Your task to perform on an android device: clear history in the chrome app Image 0: 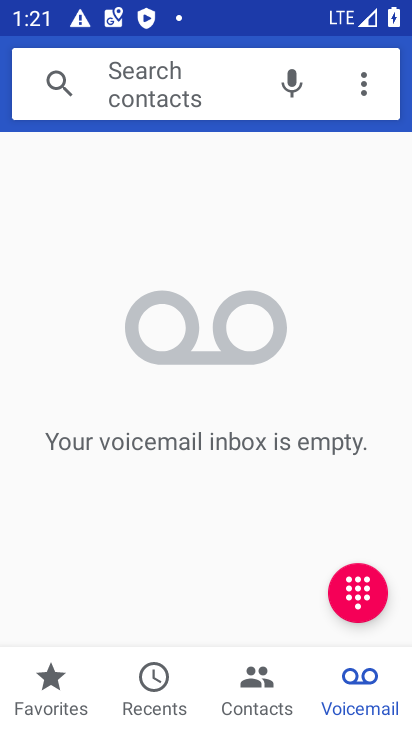
Step 0: press home button
Your task to perform on an android device: clear history in the chrome app Image 1: 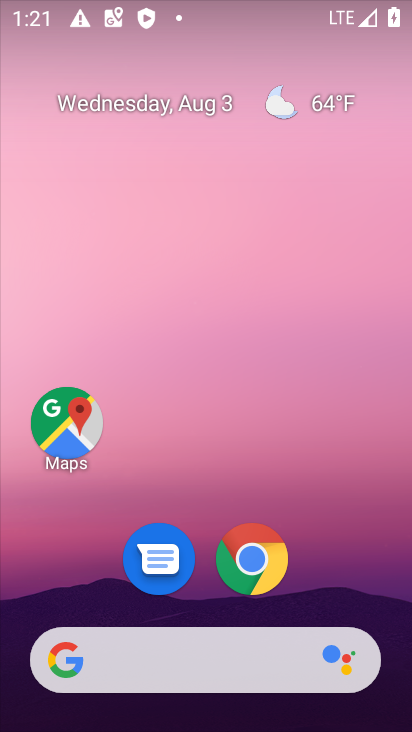
Step 1: click (255, 557)
Your task to perform on an android device: clear history in the chrome app Image 2: 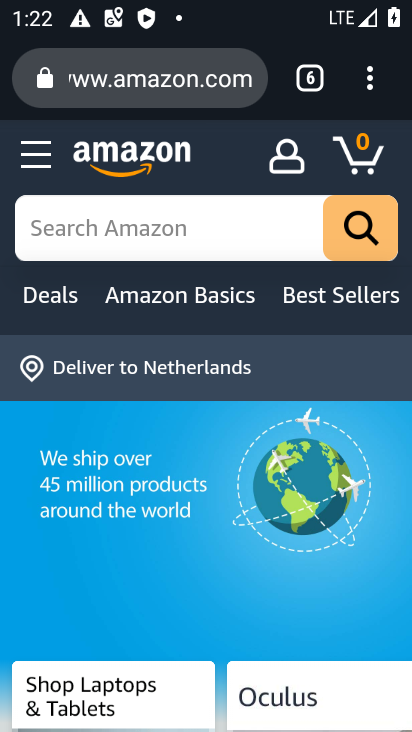
Step 2: click (370, 84)
Your task to perform on an android device: clear history in the chrome app Image 3: 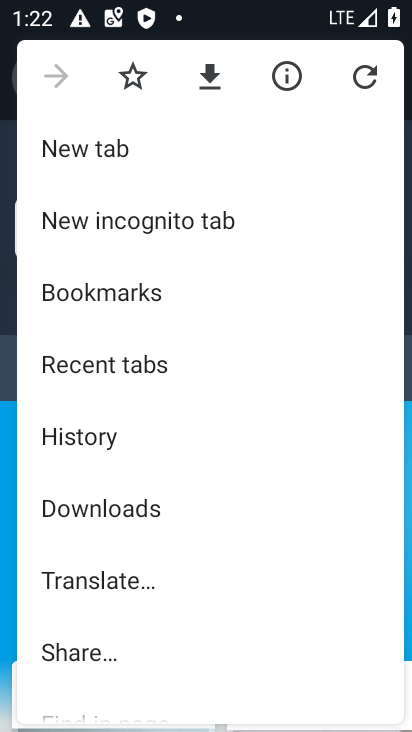
Step 3: click (87, 431)
Your task to perform on an android device: clear history in the chrome app Image 4: 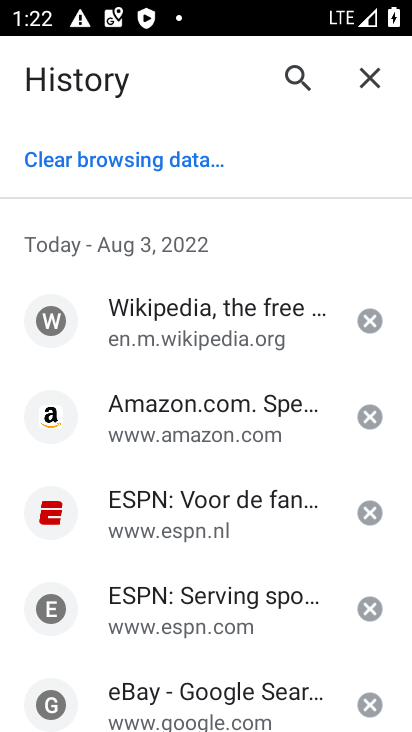
Step 4: click (175, 162)
Your task to perform on an android device: clear history in the chrome app Image 5: 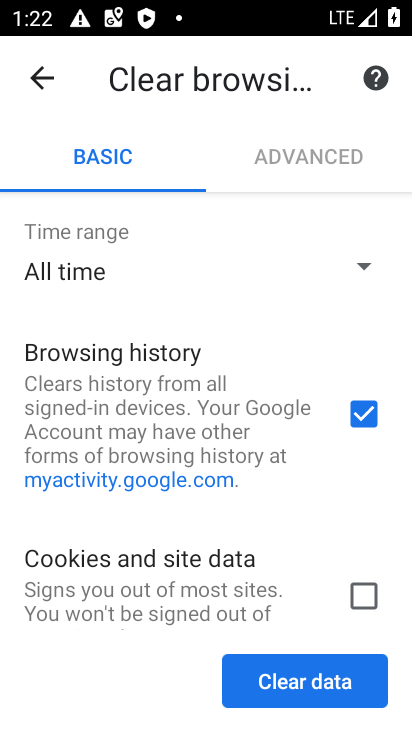
Step 5: click (307, 685)
Your task to perform on an android device: clear history in the chrome app Image 6: 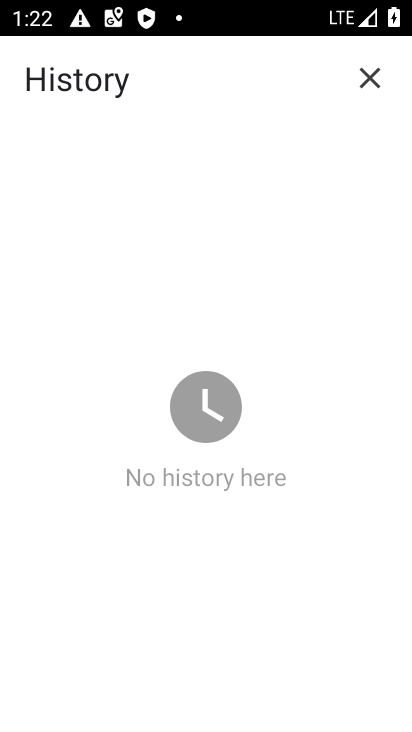
Step 6: task complete